Your task to perform on an android device: Open settings Image 0: 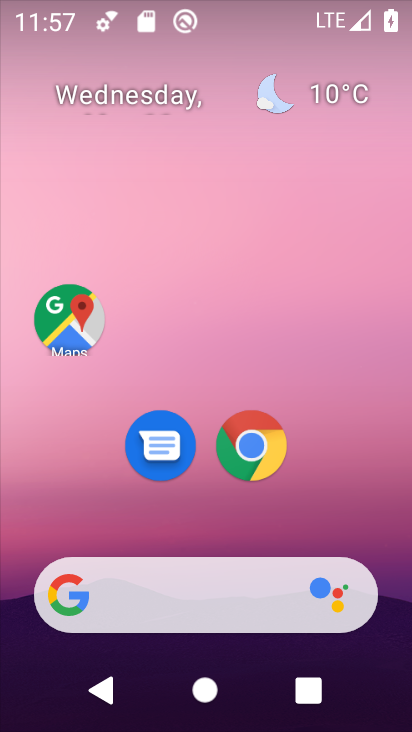
Step 0: drag from (158, 539) to (247, 86)
Your task to perform on an android device: Open settings Image 1: 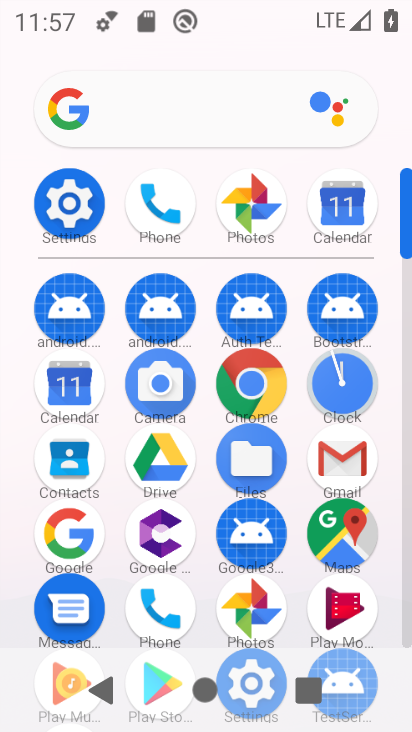
Step 1: click (71, 177)
Your task to perform on an android device: Open settings Image 2: 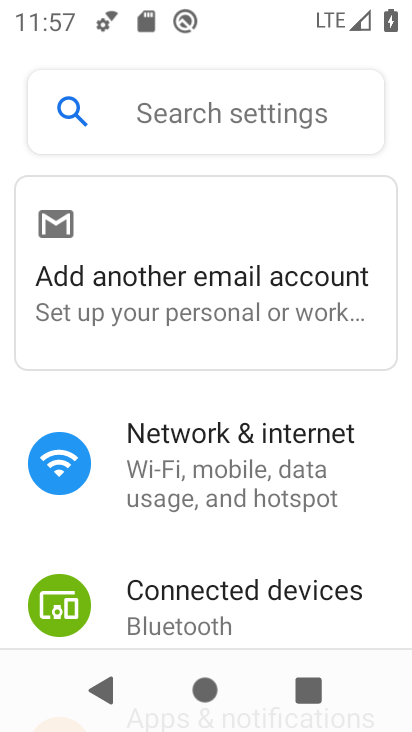
Step 2: task complete